Your task to perform on an android device: turn off location Image 0: 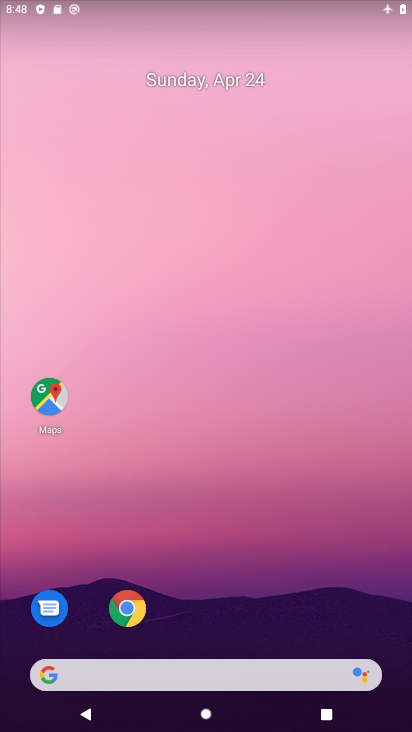
Step 0: drag from (196, 502) to (196, 136)
Your task to perform on an android device: turn off location Image 1: 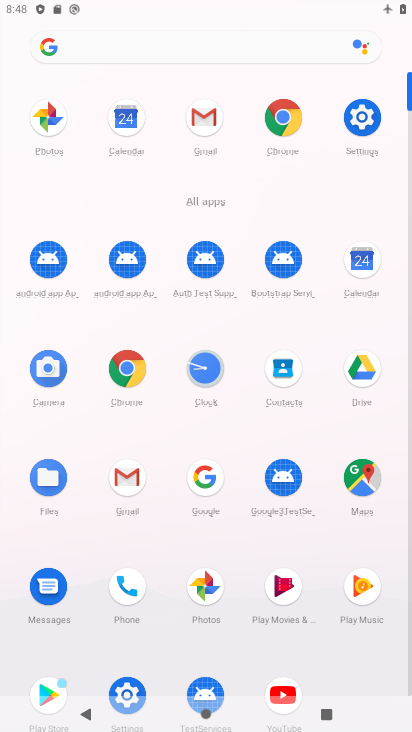
Step 1: click (375, 110)
Your task to perform on an android device: turn off location Image 2: 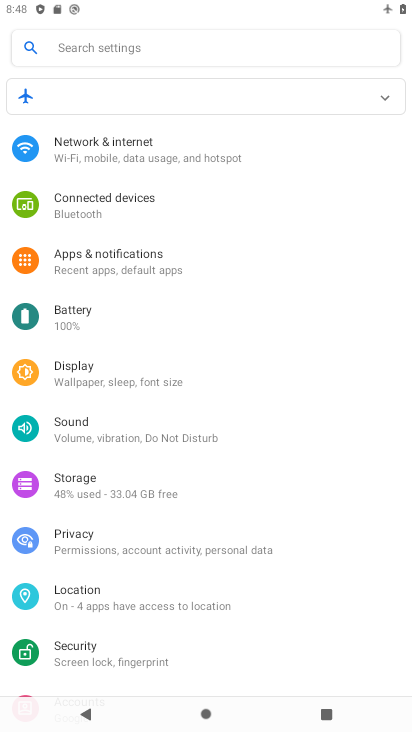
Step 2: click (158, 598)
Your task to perform on an android device: turn off location Image 3: 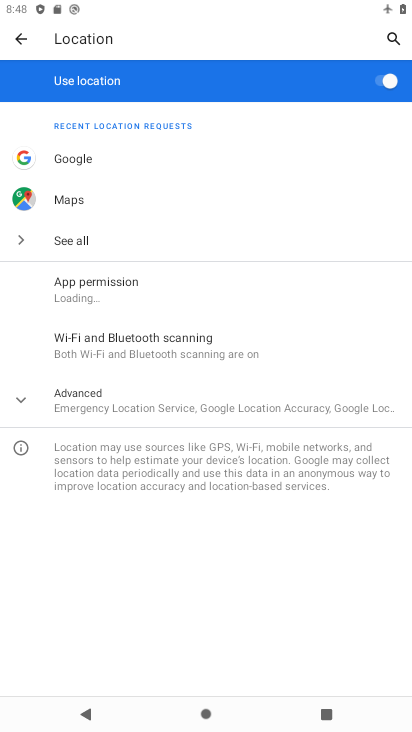
Step 3: click (374, 85)
Your task to perform on an android device: turn off location Image 4: 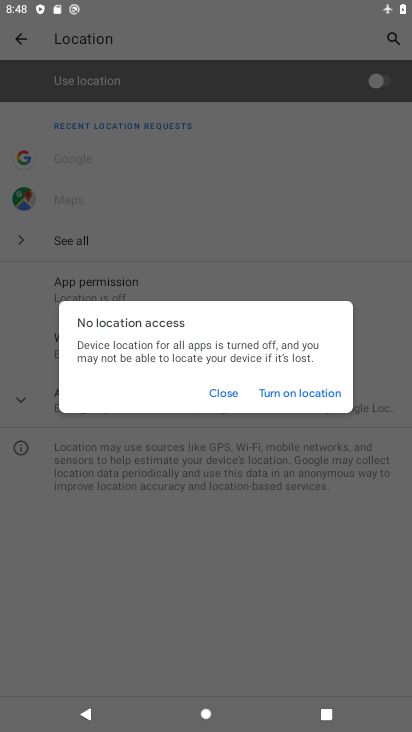
Step 4: task complete